Your task to perform on an android device: change the upload size in google photos Image 0: 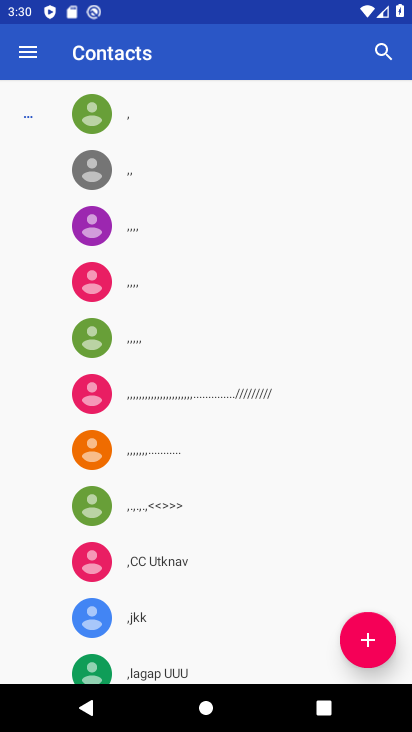
Step 0: press home button
Your task to perform on an android device: change the upload size in google photos Image 1: 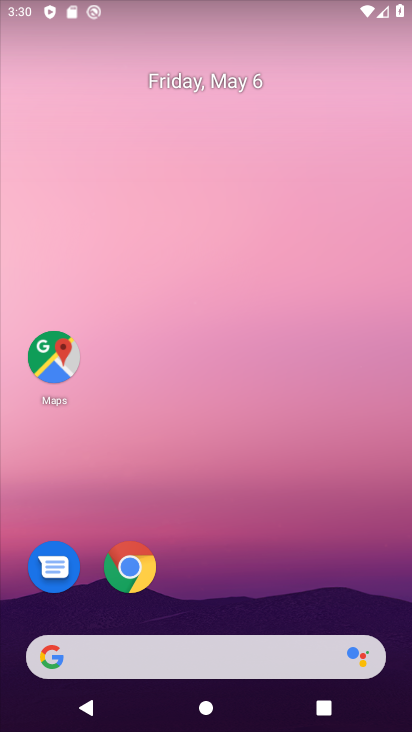
Step 1: drag from (172, 480) to (197, 48)
Your task to perform on an android device: change the upload size in google photos Image 2: 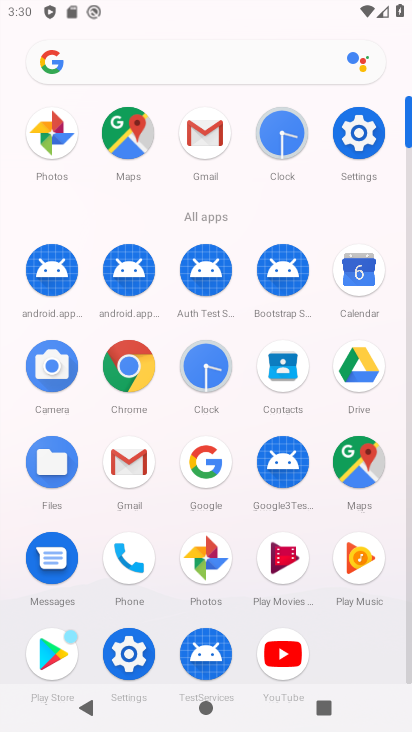
Step 2: click (203, 553)
Your task to perform on an android device: change the upload size in google photos Image 3: 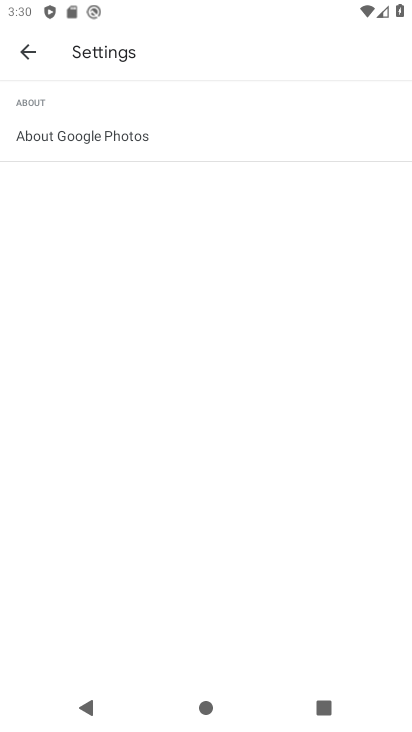
Step 3: click (25, 52)
Your task to perform on an android device: change the upload size in google photos Image 4: 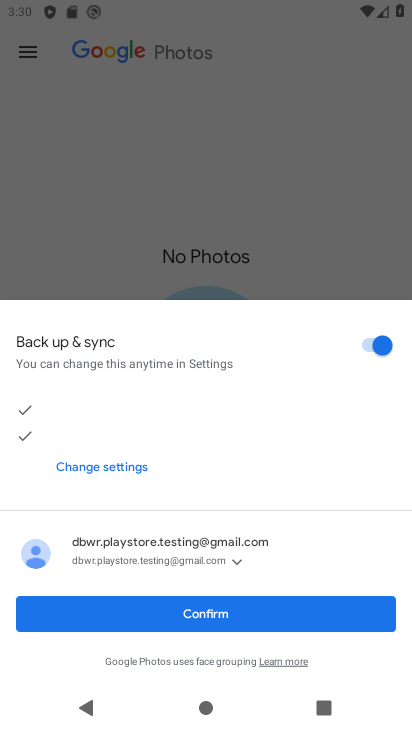
Step 4: click (25, 52)
Your task to perform on an android device: change the upload size in google photos Image 5: 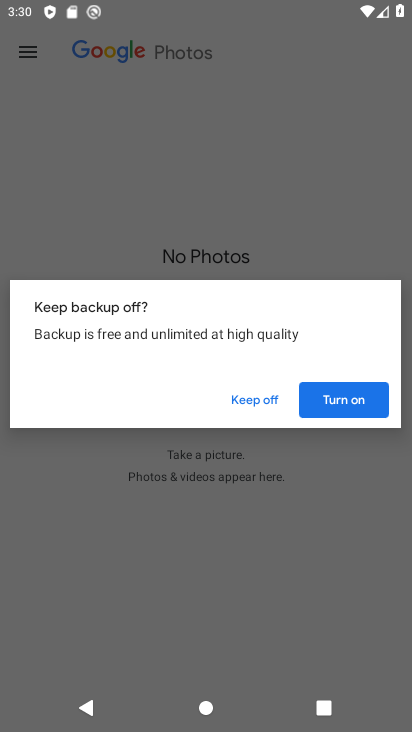
Step 5: click (334, 392)
Your task to perform on an android device: change the upload size in google photos Image 6: 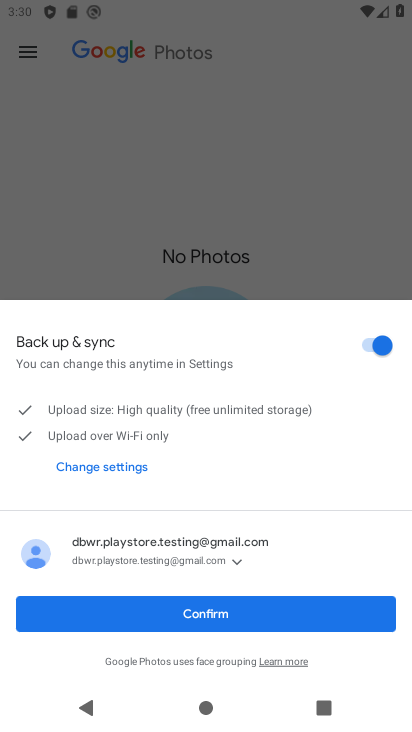
Step 6: click (171, 615)
Your task to perform on an android device: change the upload size in google photos Image 7: 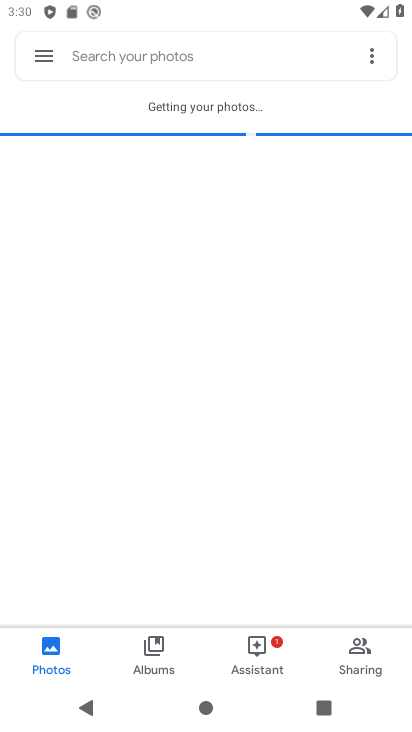
Step 7: click (40, 47)
Your task to perform on an android device: change the upload size in google photos Image 8: 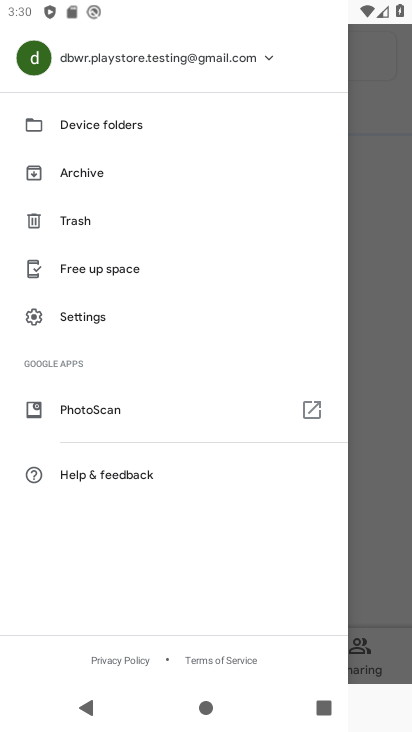
Step 8: click (85, 316)
Your task to perform on an android device: change the upload size in google photos Image 9: 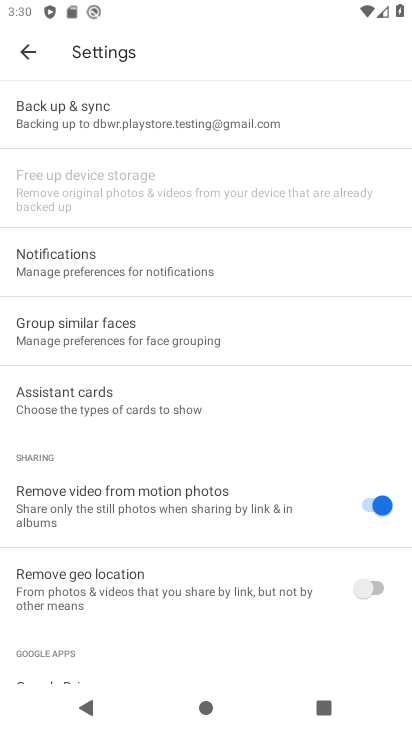
Step 9: click (138, 136)
Your task to perform on an android device: change the upload size in google photos Image 10: 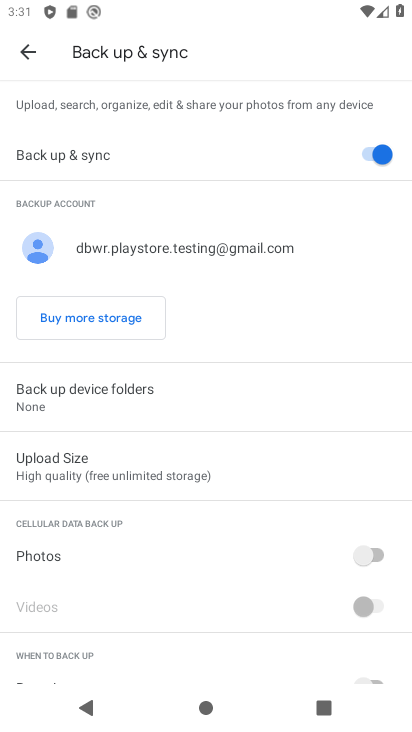
Step 10: task complete